Your task to perform on an android device: Go to notification settings Image 0: 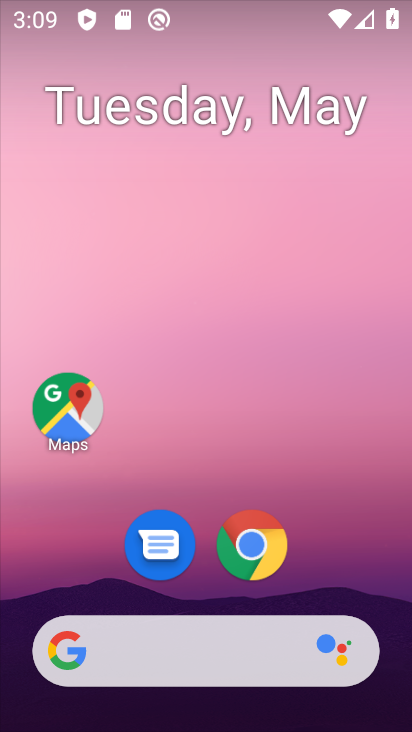
Step 0: drag from (263, 622) to (263, 359)
Your task to perform on an android device: Go to notification settings Image 1: 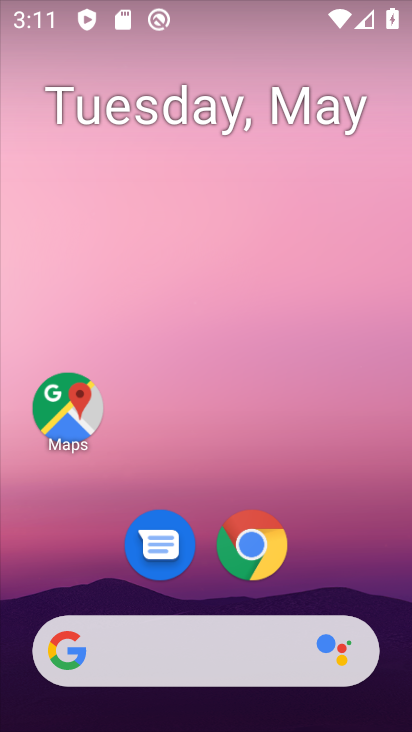
Step 1: drag from (191, 544) to (240, 54)
Your task to perform on an android device: Go to notification settings Image 2: 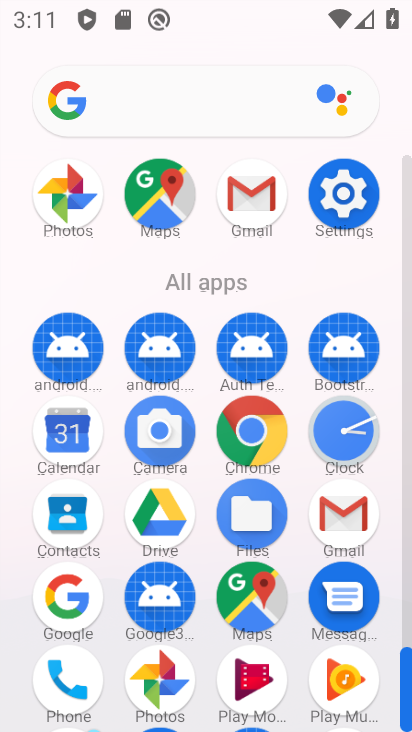
Step 2: click (342, 197)
Your task to perform on an android device: Go to notification settings Image 3: 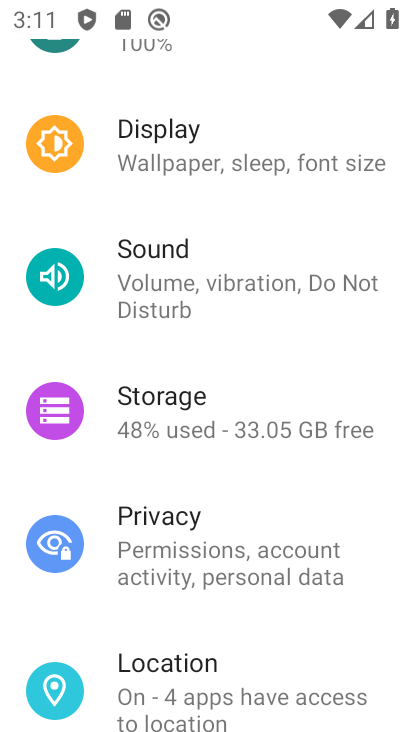
Step 3: drag from (233, 129) to (256, 654)
Your task to perform on an android device: Go to notification settings Image 4: 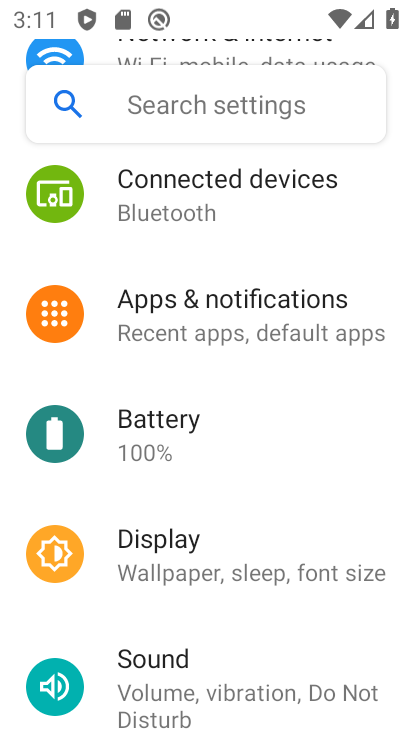
Step 4: click (222, 312)
Your task to perform on an android device: Go to notification settings Image 5: 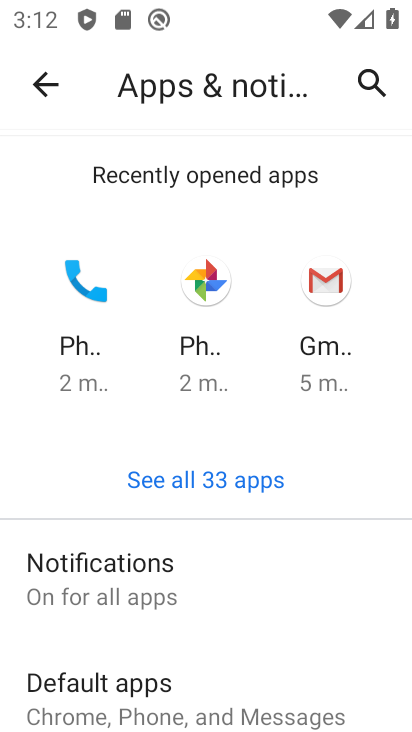
Step 5: click (139, 583)
Your task to perform on an android device: Go to notification settings Image 6: 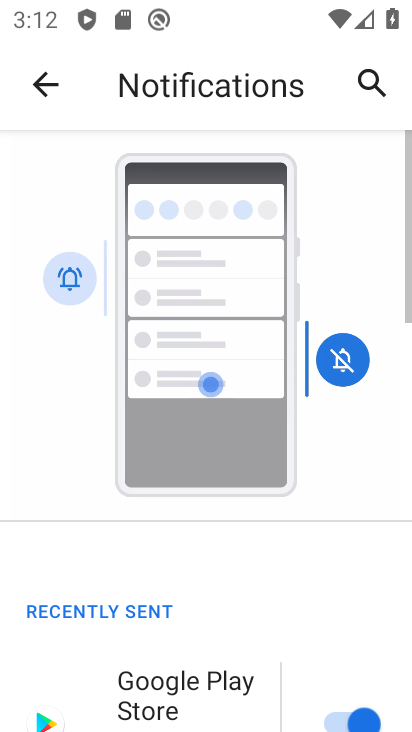
Step 6: task complete